Your task to perform on an android device: set an alarm Image 0: 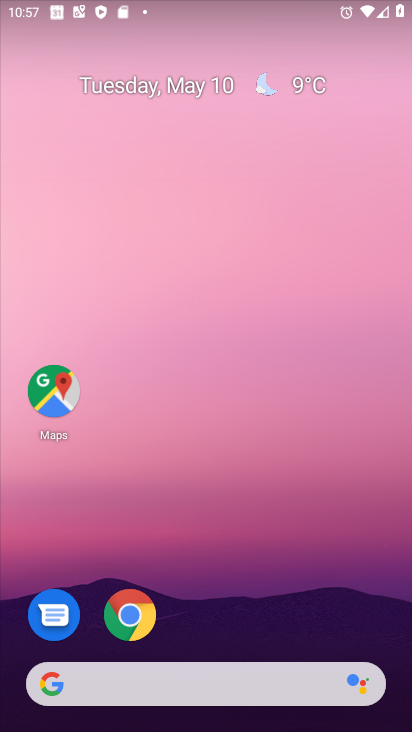
Step 0: press home button
Your task to perform on an android device: set an alarm Image 1: 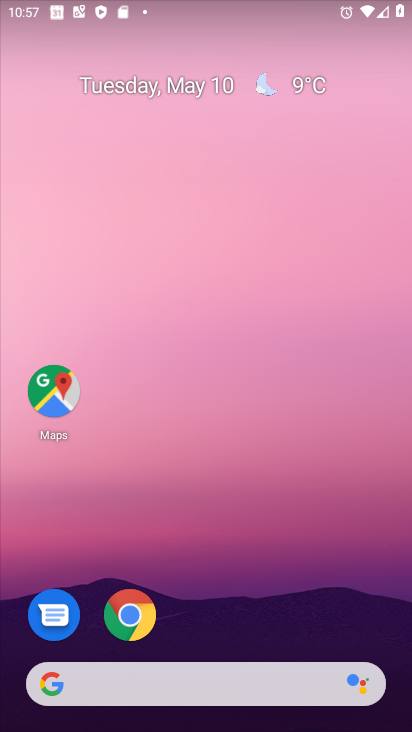
Step 1: drag from (204, 632) to (254, 69)
Your task to perform on an android device: set an alarm Image 2: 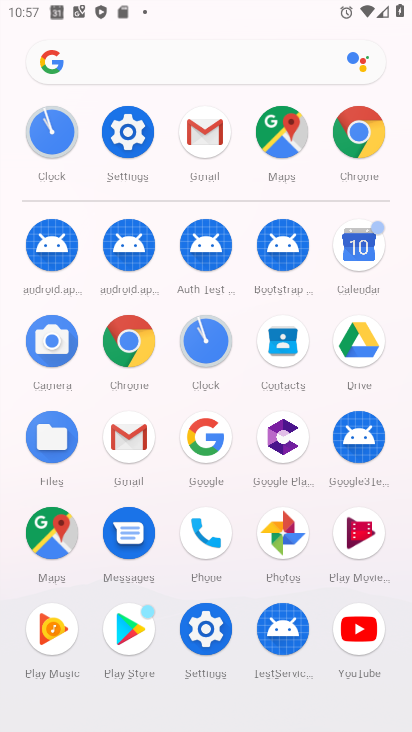
Step 2: click (202, 338)
Your task to perform on an android device: set an alarm Image 3: 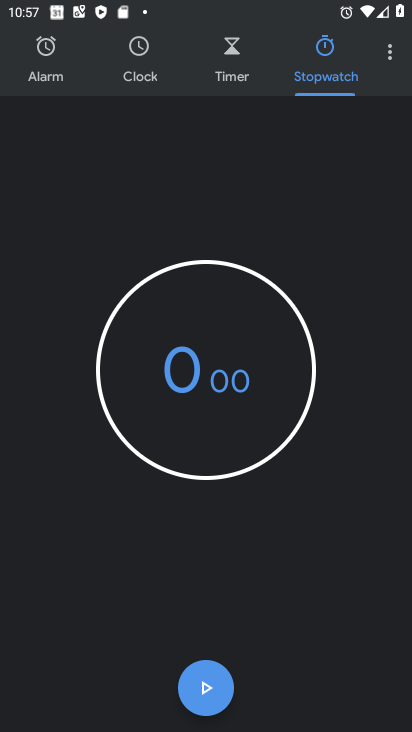
Step 3: click (49, 65)
Your task to perform on an android device: set an alarm Image 4: 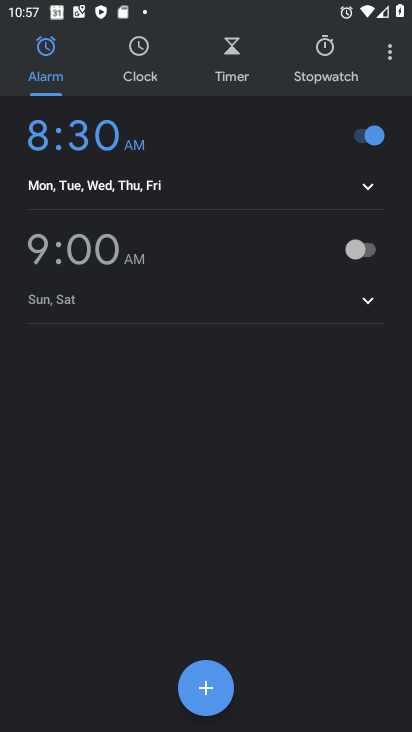
Step 4: click (357, 241)
Your task to perform on an android device: set an alarm Image 5: 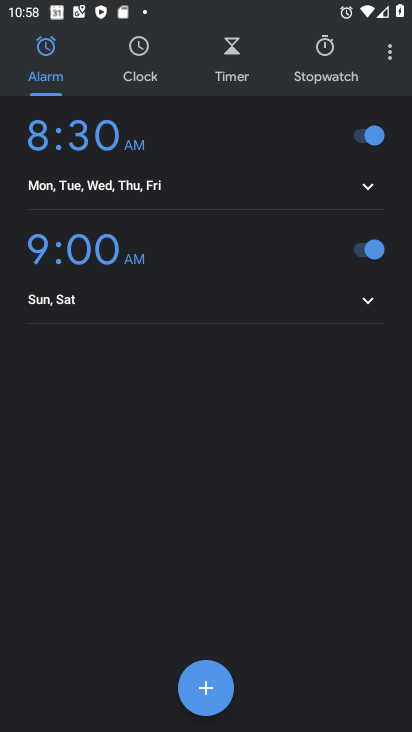
Step 5: task complete